Your task to perform on an android device: Open Youtube and go to "Your channel" Image 0: 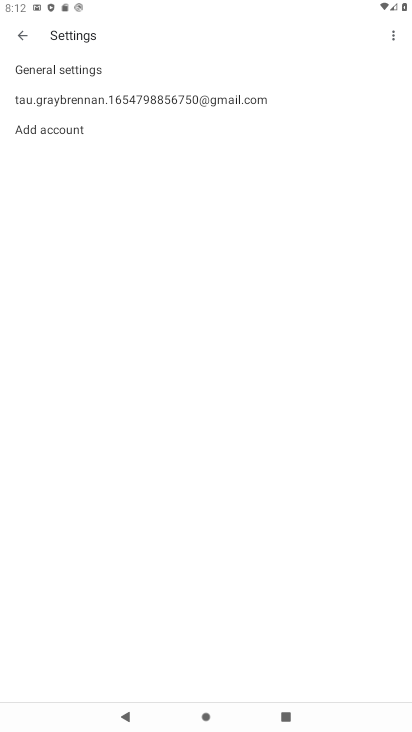
Step 0: press home button
Your task to perform on an android device: Open Youtube and go to "Your channel" Image 1: 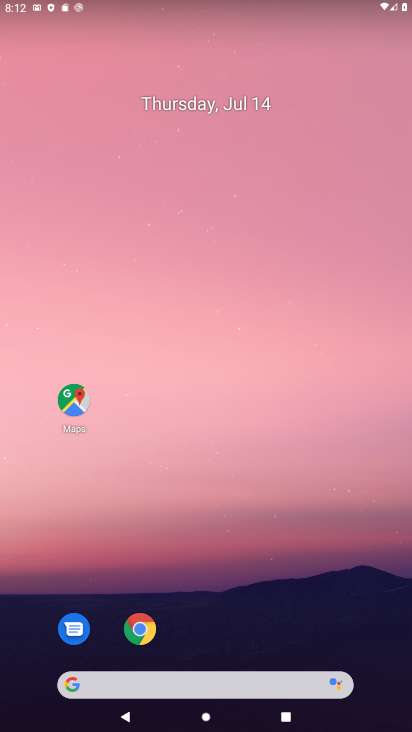
Step 1: drag from (194, 616) to (227, 10)
Your task to perform on an android device: Open Youtube and go to "Your channel" Image 2: 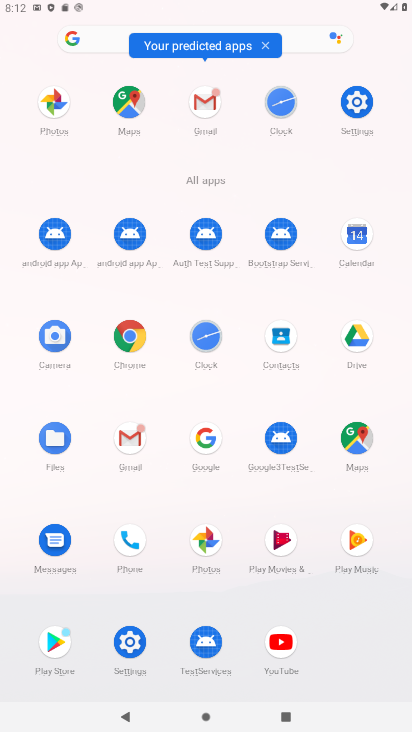
Step 2: click (287, 650)
Your task to perform on an android device: Open Youtube and go to "Your channel" Image 3: 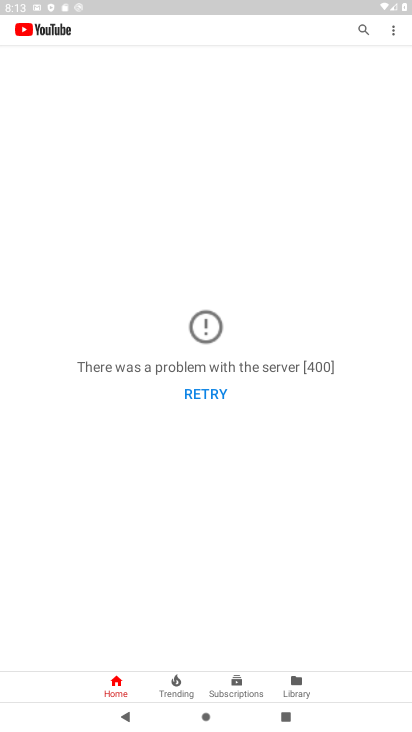
Step 3: click (201, 394)
Your task to perform on an android device: Open Youtube and go to "Your channel" Image 4: 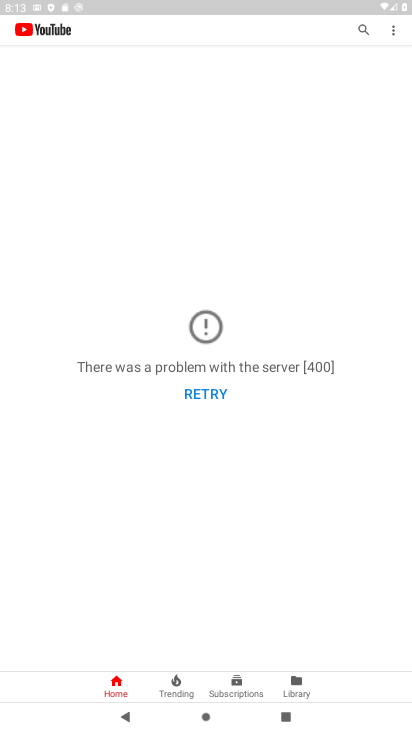
Step 4: click (205, 396)
Your task to perform on an android device: Open Youtube and go to "Your channel" Image 5: 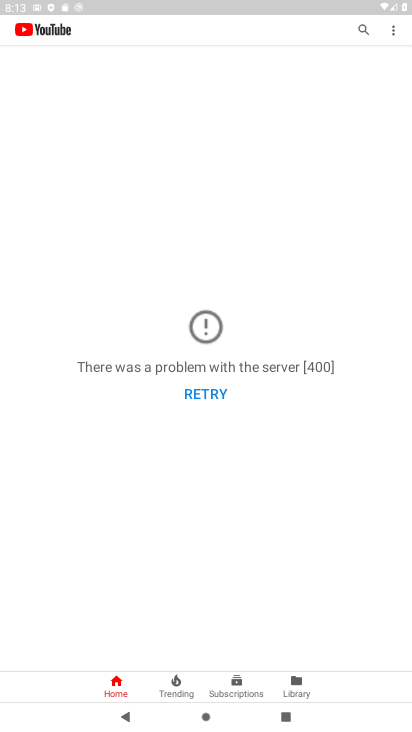
Step 5: click (205, 396)
Your task to perform on an android device: Open Youtube and go to "Your channel" Image 6: 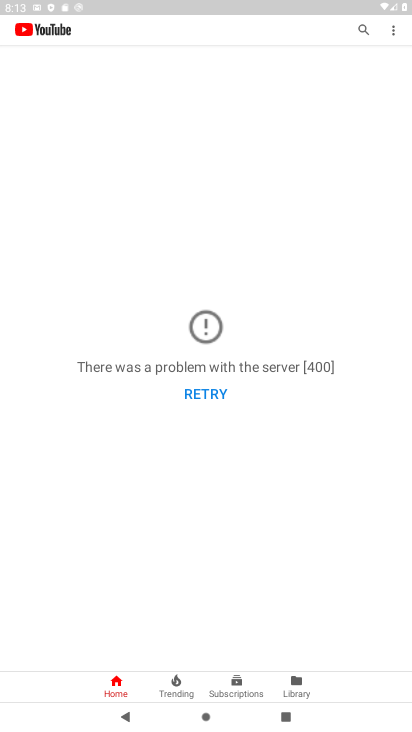
Step 6: click (205, 396)
Your task to perform on an android device: Open Youtube and go to "Your channel" Image 7: 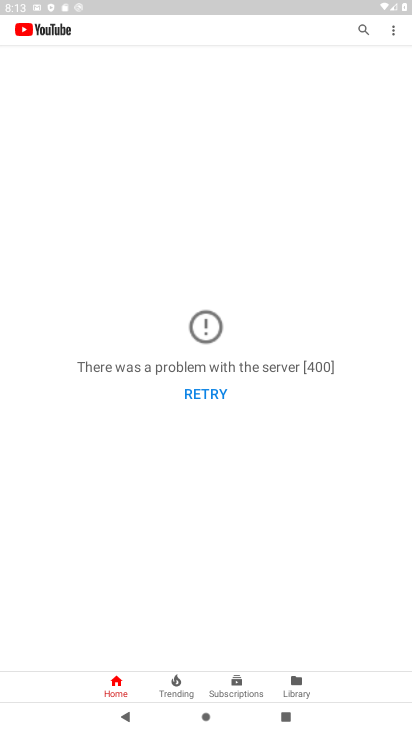
Step 7: task complete